Your task to perform on an android device: toggle sleep mode Image 0: 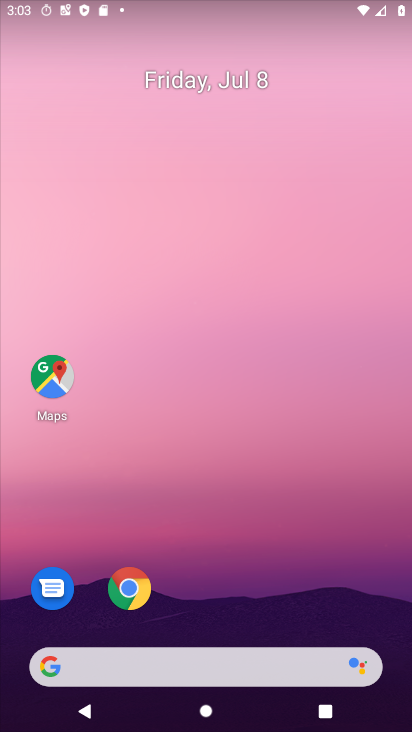
Step 0: press home button
Your task to perform on an android device: toggle sleep mode Image 1: 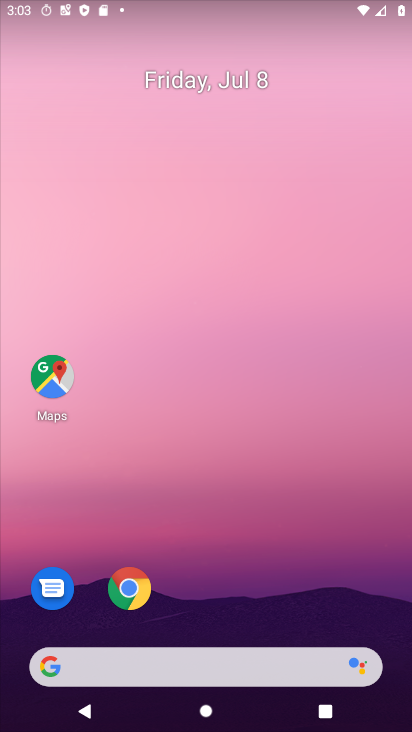
Step 1: drag from (218, 610) to (203, 103)
Your task to perform on an android device: toggle sleep mode Image 2: 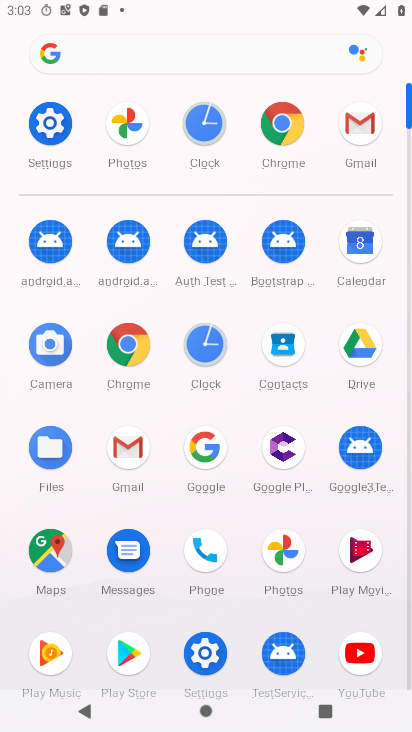
Step 2: click (49, 131)
Your task to perform on an android device: toggle sleep mode Image 3: 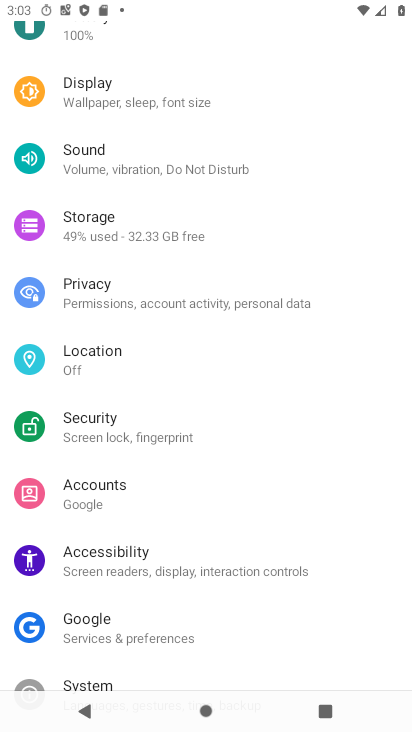
Step 3: click (98, 103)
Your task to perform on an android device: toggle sleep mode Image 4: 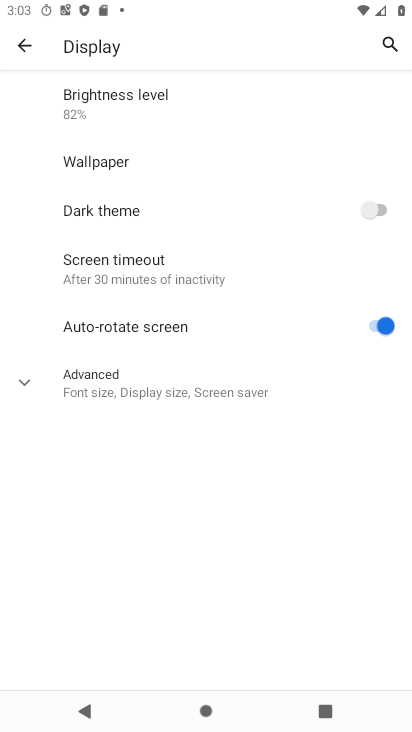
Step 4: task complete